Your task to perform on an android device: Set the phone to "Do not disturb". Image 0: 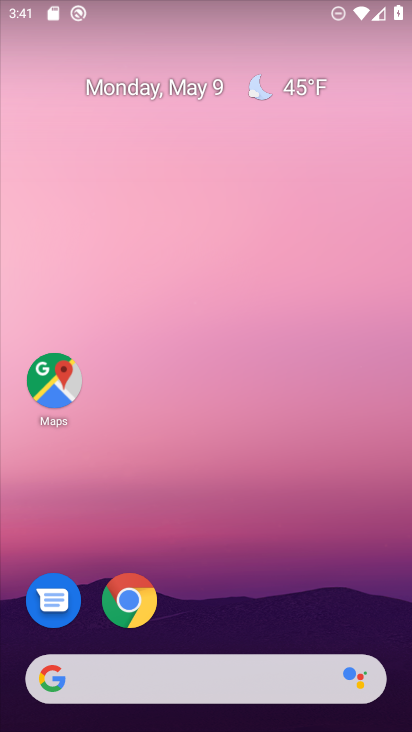
Step 0: drag from (276, 534) to (198, 30)
Your task to perform on an android device: Set the phone to "Do not disturb". Image 1: 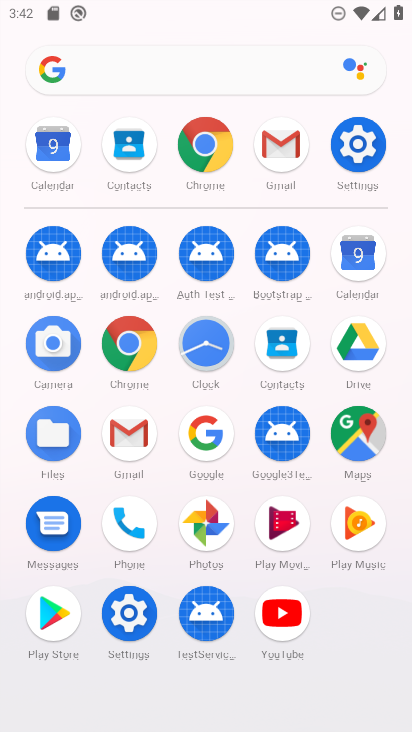
Step 1: drag from (21, 384) to (0, 56)
Your task to perform on an android device: Set the phone to "Do not disturb". Image 2: 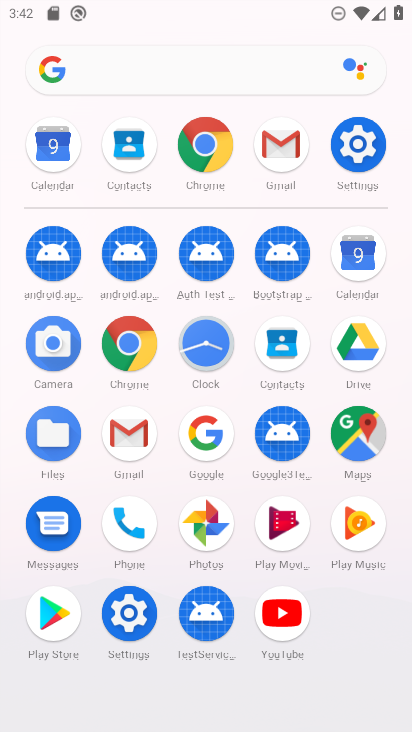
Step 2: click (362, 145)
Your task to perform on an android device: Set the phone to "Do not disturb". Image 3: 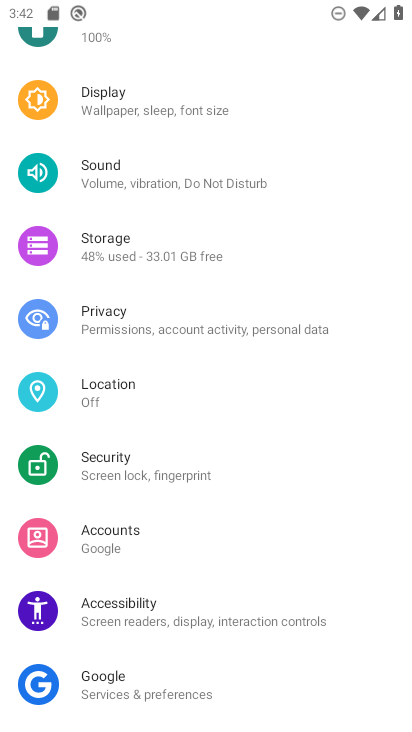
Step 3: drag from (256, 608) to (214, 190)
Your task to perform on an android device: Set the phone to "Do not disturb". Image 4: 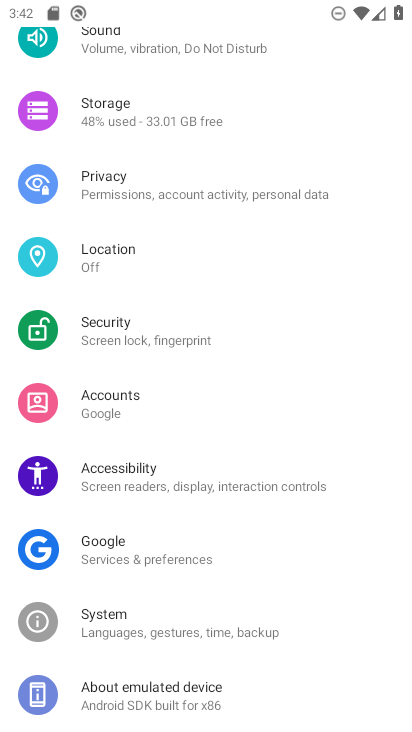
Step 4: drag from (161, 280) to (191, 556)
Your task to perform on an android device: Set the phone to "Do not disturb". Image 5: 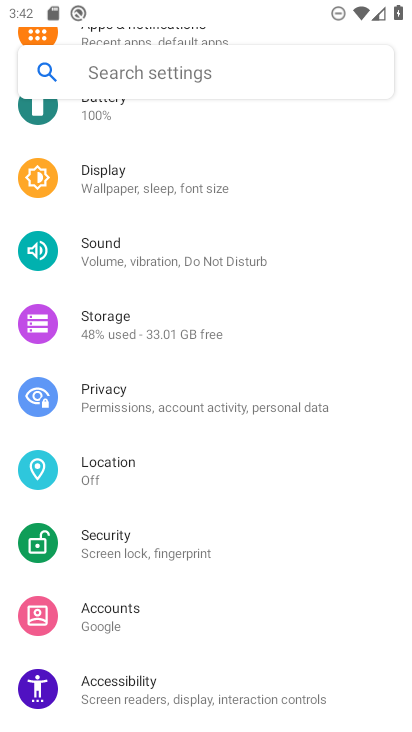
Step 5: click (183, 259)
Your task to perform on an android device: Set the phone to "Do not disturb". Image 6: 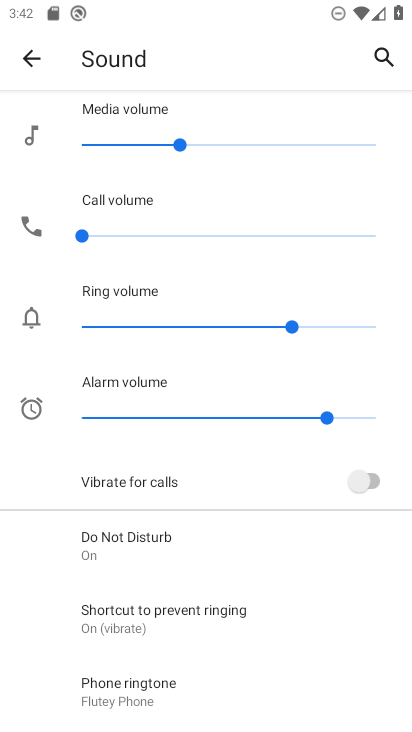
Step 6: click (145, 532)
Your task to perform on an android device: Set the phone to "Do not disturb". Image 7: 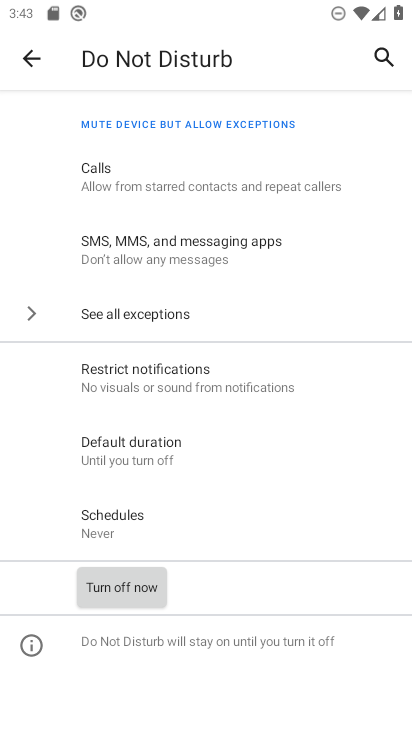
Step 7: task complete